Your task to perform on an android device: open a bookmark in the chrome app Image 0: 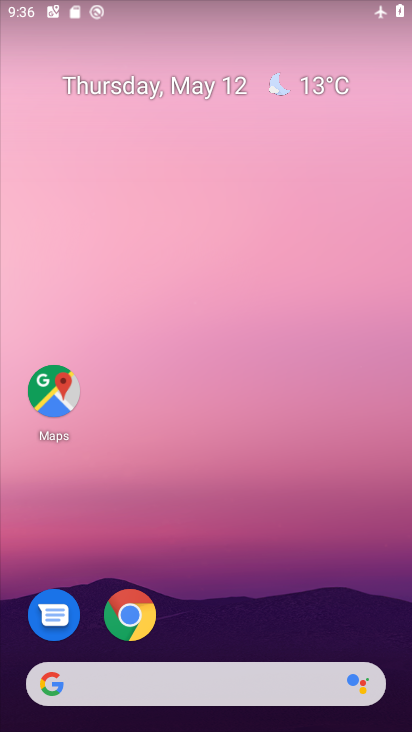
Step 0: click (130, 616)
Your task to perform on an android device: open a bookmark in the chrome app Image 1: 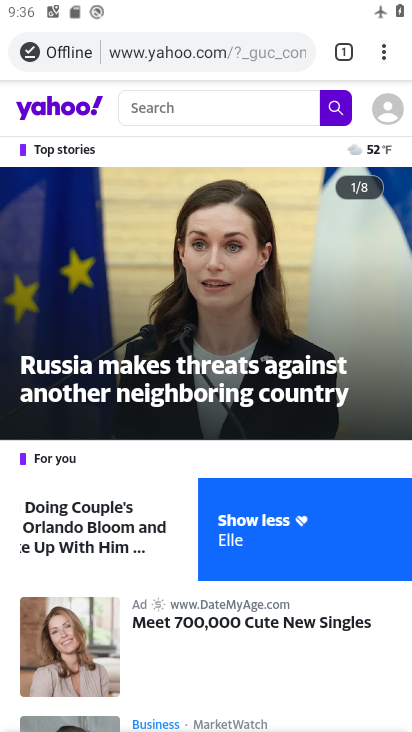
Step 1: click (385, 54)
Your task to perform on an android device: open a bookmark in the chrome app Image 2: 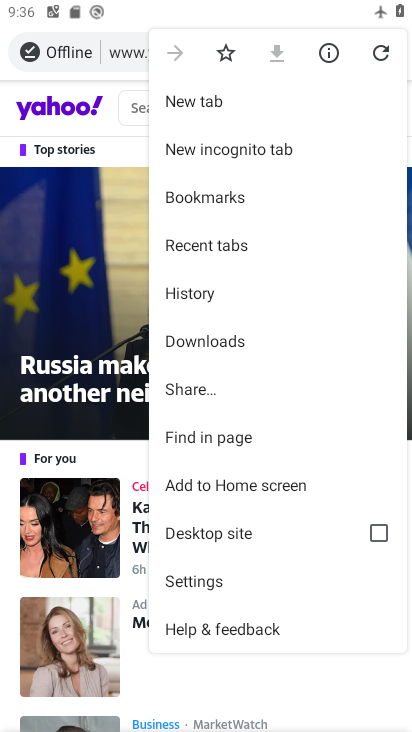
Step 2: click (211, 198)
Your task to perform on an android device: open a bookmark in the chrome app Image 3: 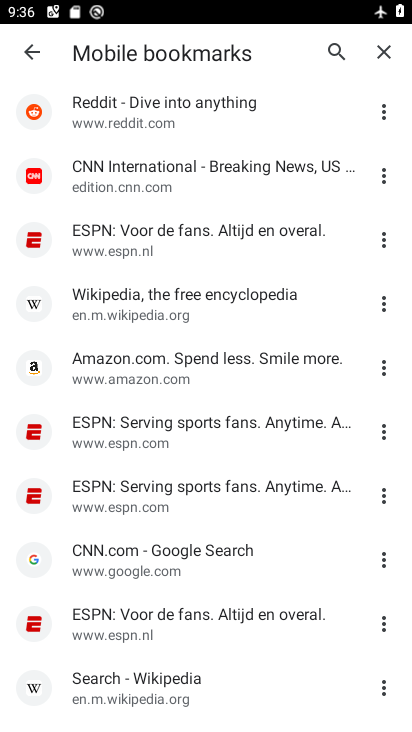
Step 3: task complete